Your task to perform on an android device: Search for flights from NYC to Sydney Image 0: 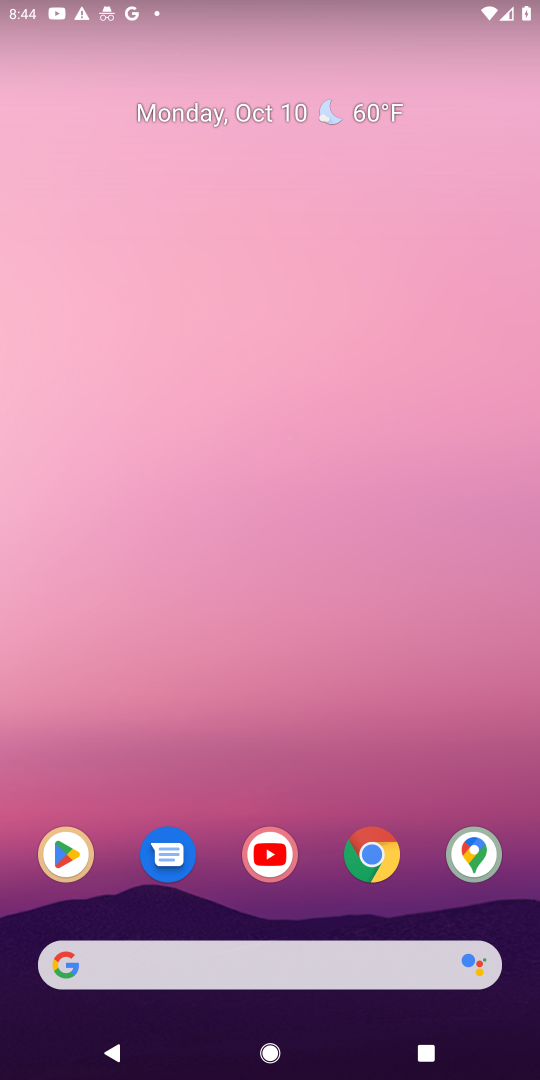
Step 0: click (375, 859)
Your task to perform on an android device: Search for flights from NYC to Sydney Image 1: 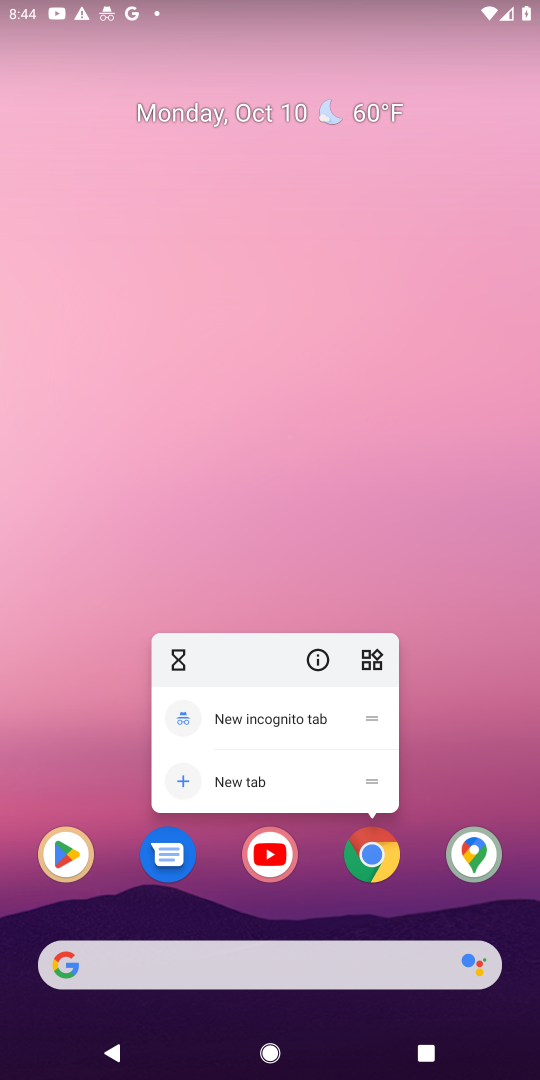
Step 1: click (375, 861)
Your task to perform on an android device: Search for flights from NYC to Sydney Image 2: 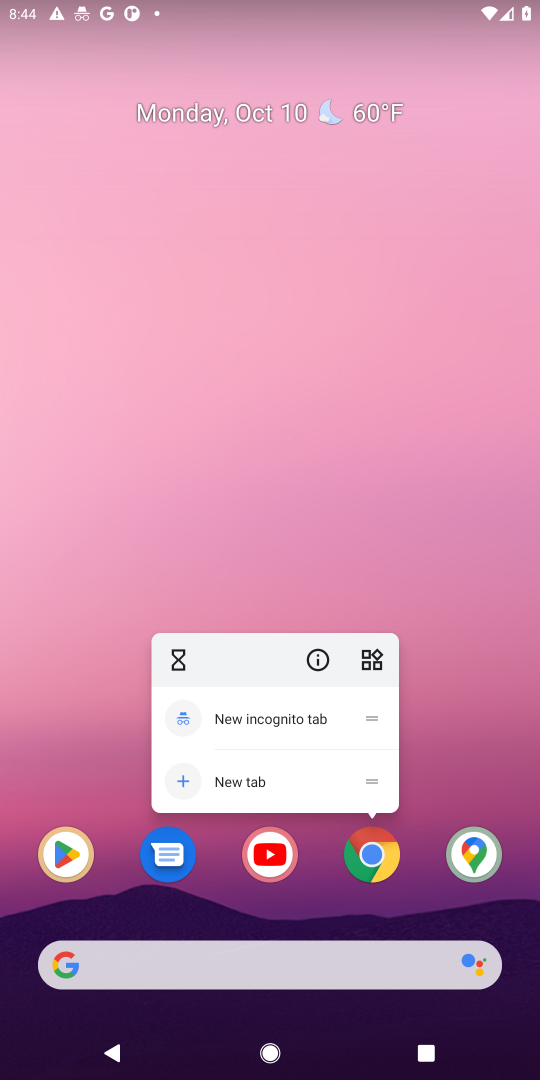
Step 2: click (362, 852)
Your task to perform on an android device: Search for flights from NYC to Sydney Image 3: 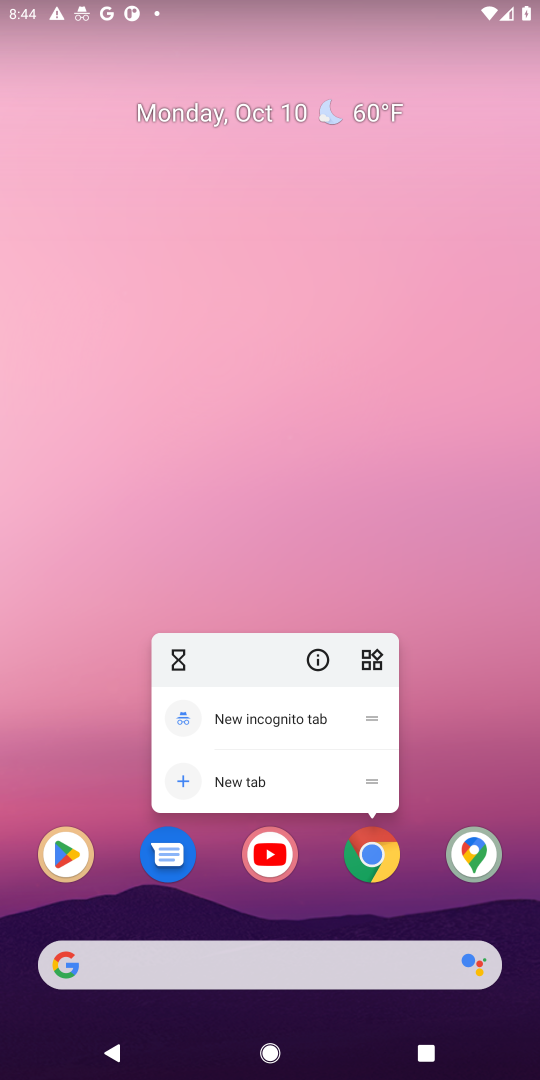
Step 3: click (378, 855)
Your task to perform on an android device: Search for flights from NYC to Sydney Image 4: 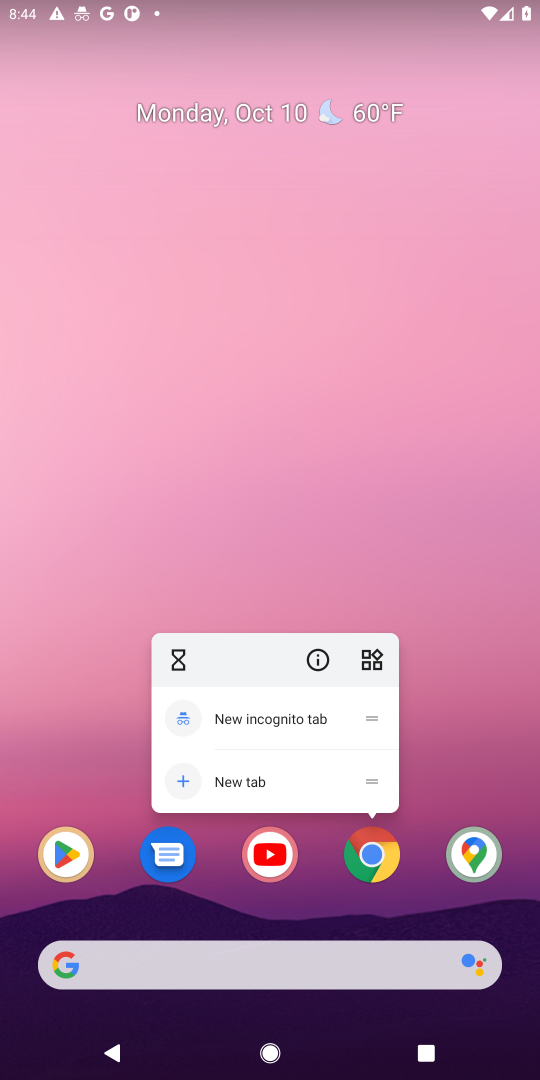
Step 4: click (378, 856)
Your task to perform on an android device: Search for flights from NYC to Sydney Image 5: 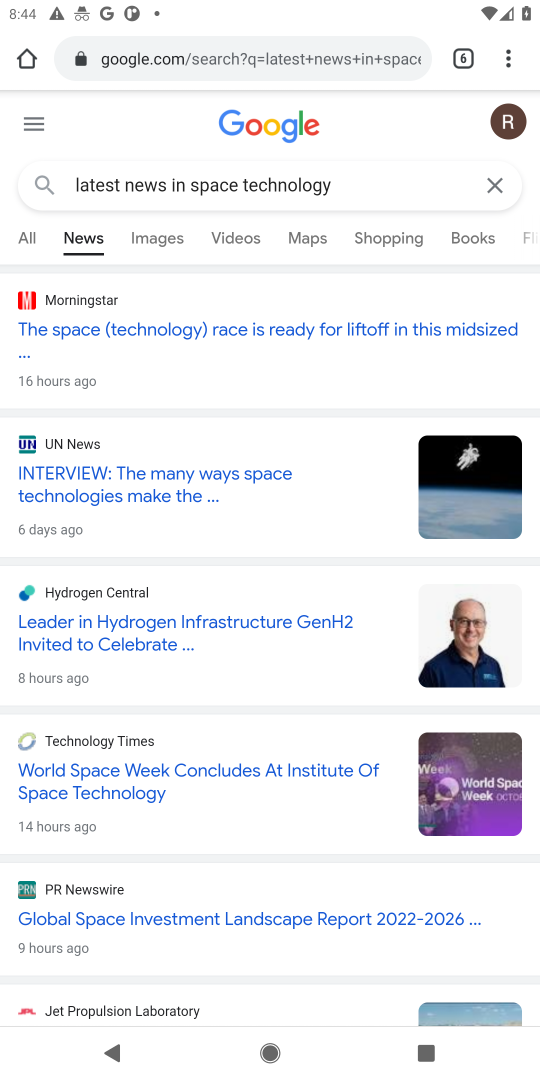
Step 5: click (268, 54)
Your task to perform on an android device: Search for flights from NYC to Sydney Image 6: 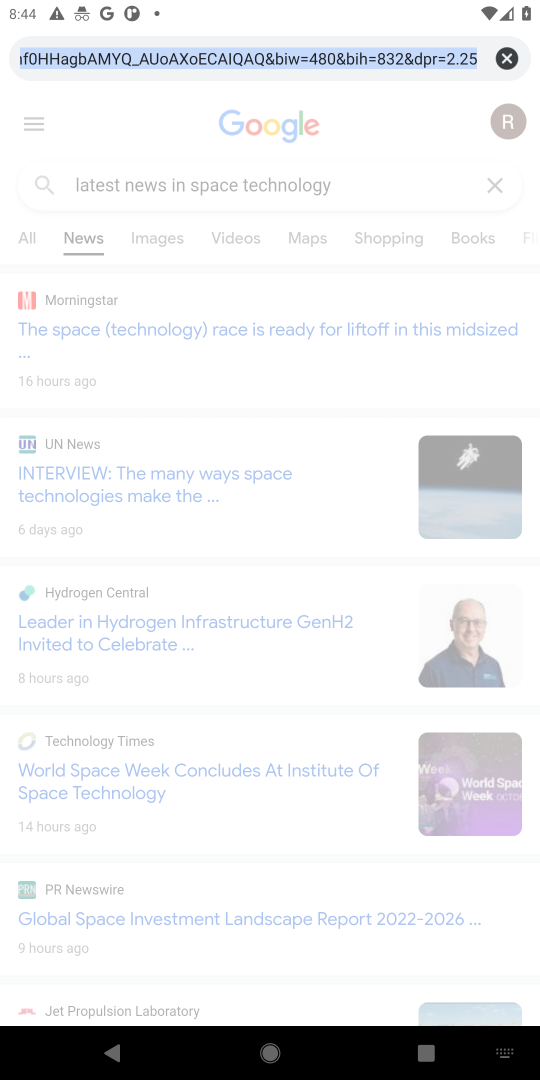
Step 6: click (497, 53)
Your task to perform on an android device: Search for flights from NYC to Sydney Image 7: 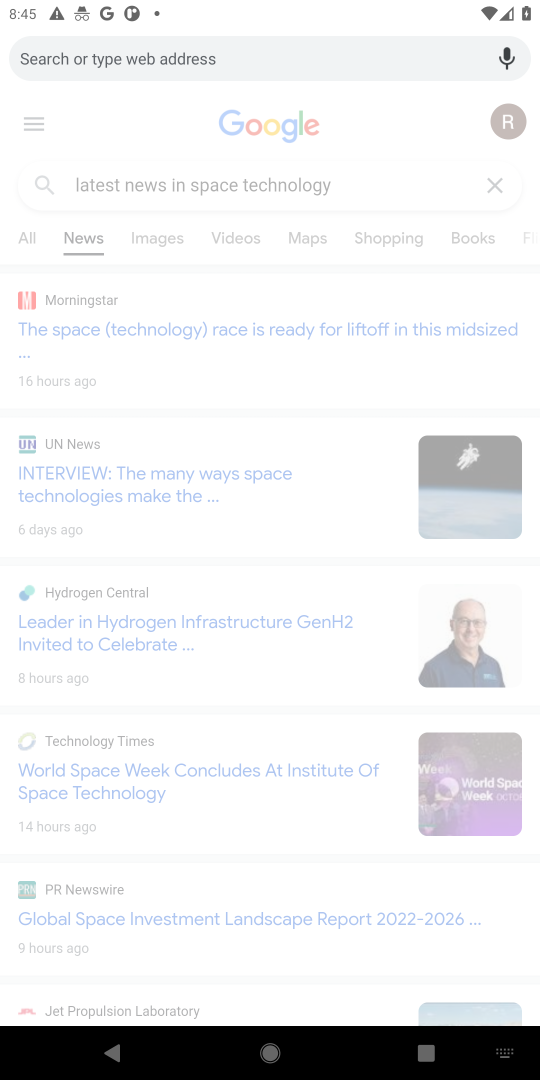
Step 7: type "flights from NYC to Sydney"
Your task to perform on an android device: Search for flights from NYC to Sydney Image 8: 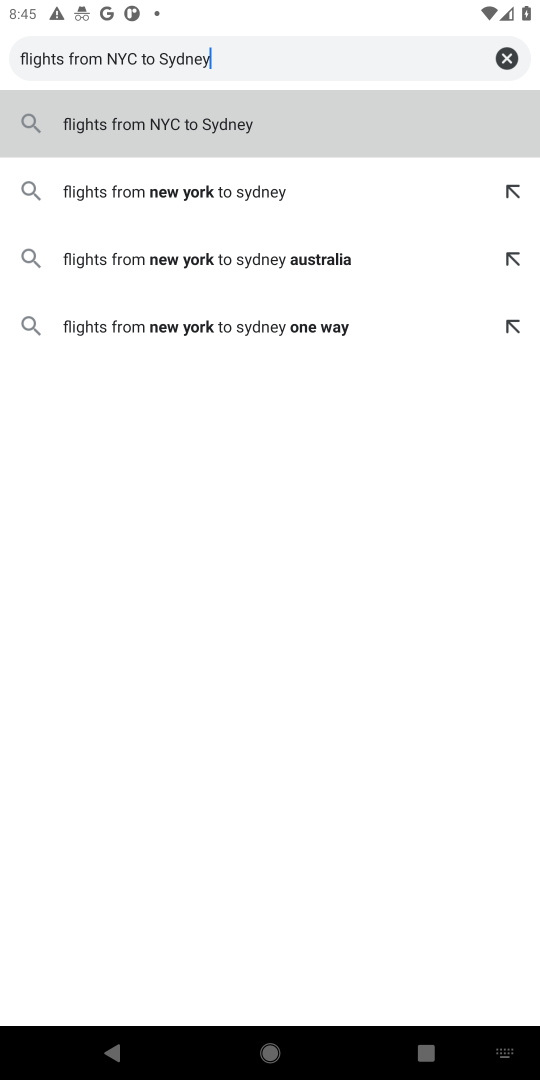
Step 8: click (211, 124)
Your task to perform on an android device: Search for flights from NYC to Sydney Image 9: 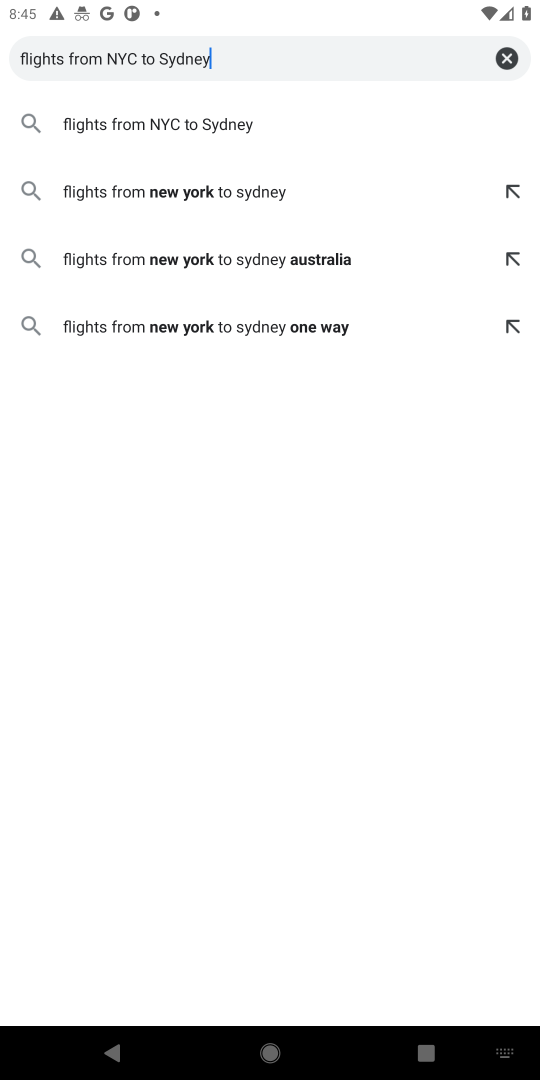
Step 9: click (183, 122)
Your task to perform on an android device: Search for flights from NYC to Sydney Image 10: 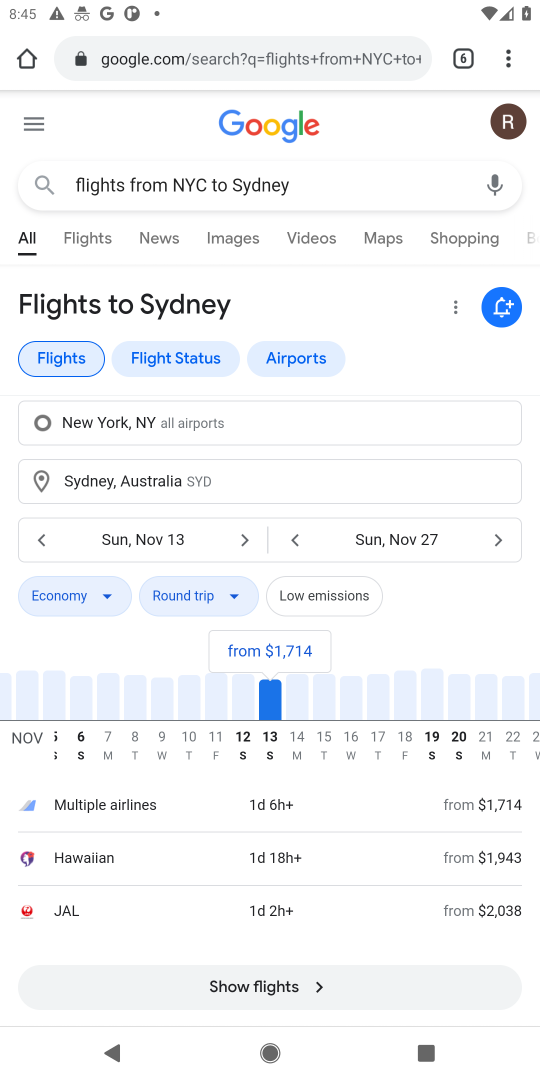
Step 10: drag from (213, 858) to (405, 400)
Your task to perform on an android device: Search for flights from NYC to Sydney Image 11: 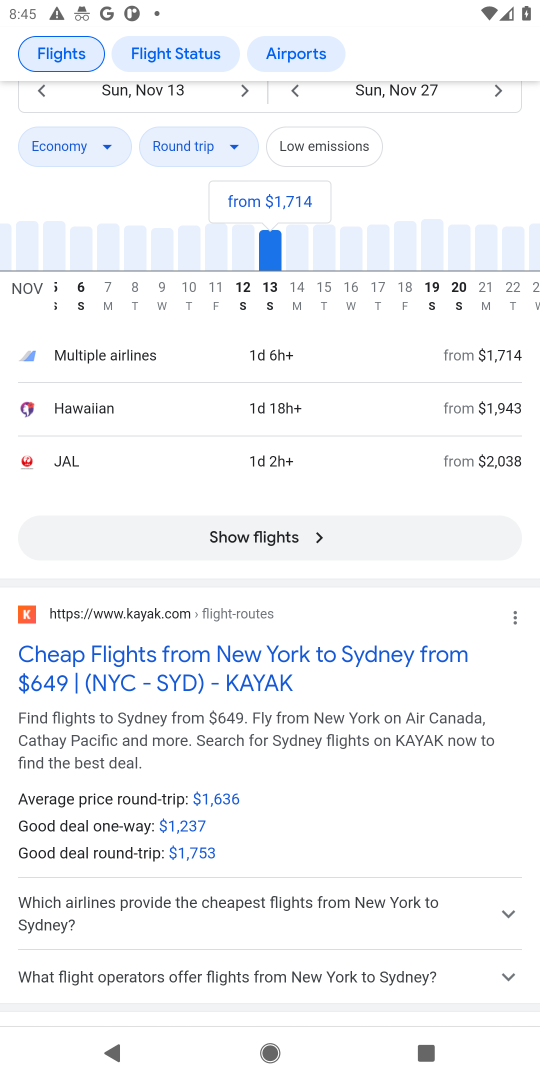
Step 11: click (276, 537)
Your task to perform on an android device: Search for flights from NYC to Sydney Image 12: 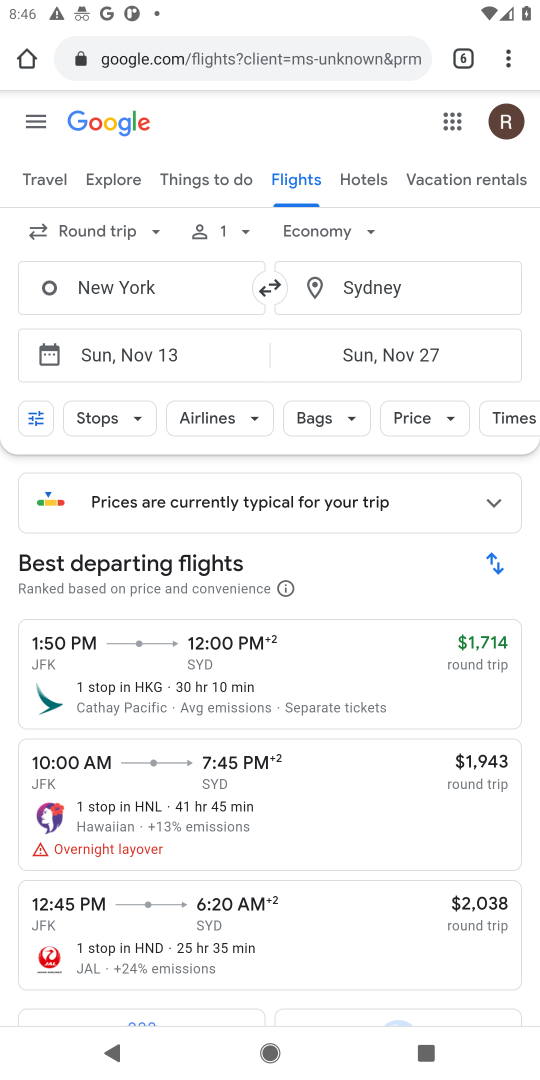
Step 12: task complete